Your task to perform on an android device: Search for seafood restaurants on Google Maps Image 0: 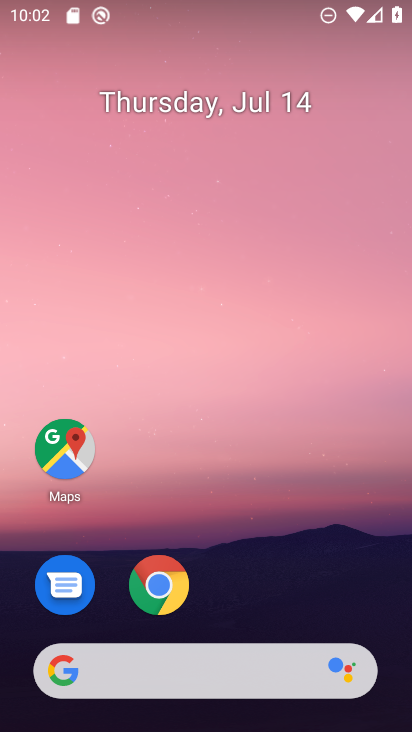
Step 0: click (66, 458)
Your task to perform on an android device: Search for seafood restaurants on Google Maps Image 1: 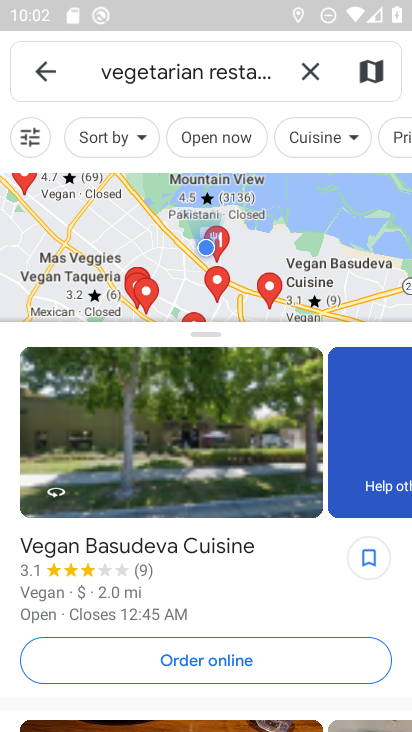
Step 1: click (324, 74)
Your task to perform on an android device: Search for seafood restaurants on Google Maps Image 2: 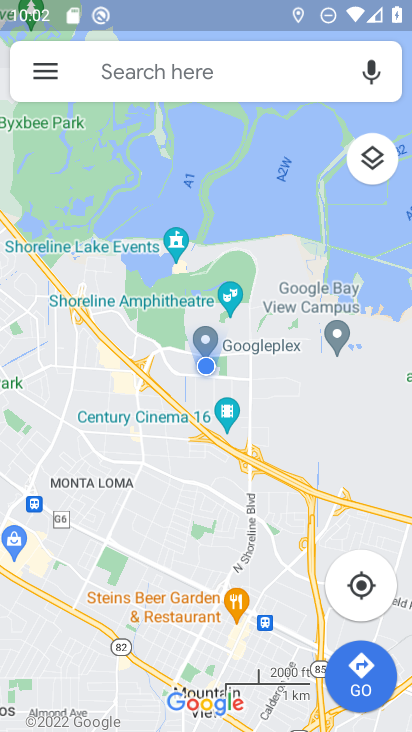
Step 2: click (147, 54)
Your task to perform on an android device: Search for seafood restaurants on Google Maps Image 3: 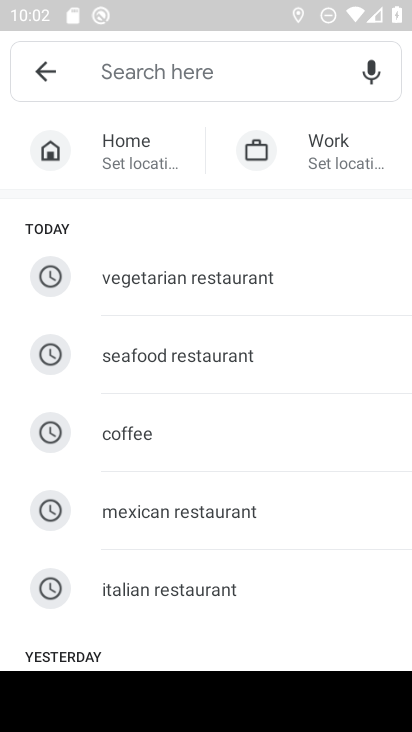
Step 3: click (112, 367)
Your task to perform on an android device: Search for seafood restaurants on Google Maps Image 4: 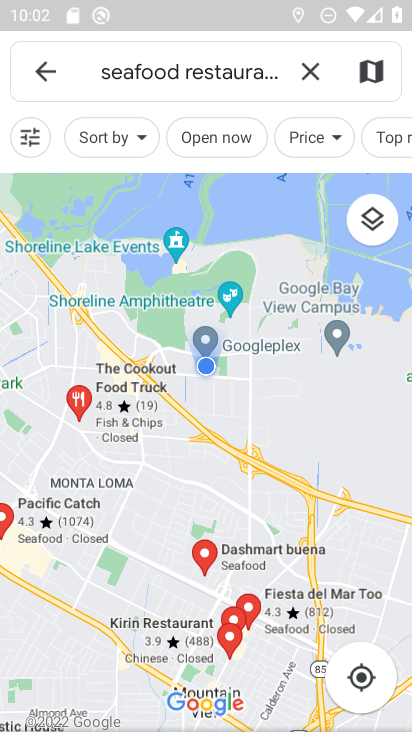
Step 4: click (112, 367)
Your task to perform on an android device: Search for seafood restaurants on Google Maps Image 5: 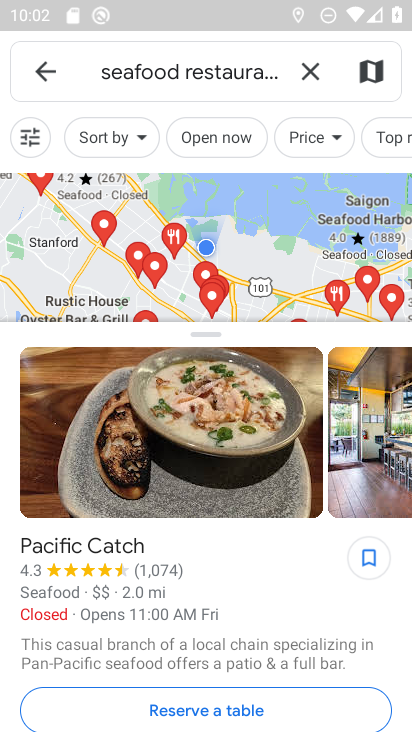
Step 5: task complete